Your task to perform on an android device: What is the recent news? Image 0: 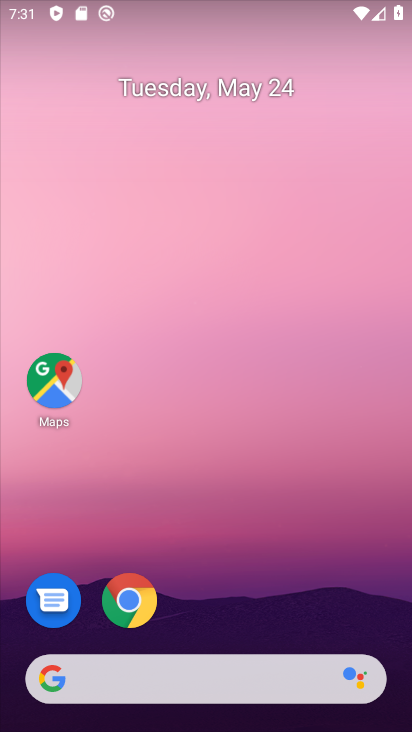
Step 0: drag from (86, 254) to (408, 322)
Your task to perform on an android device: What is the recent news? Image 1: 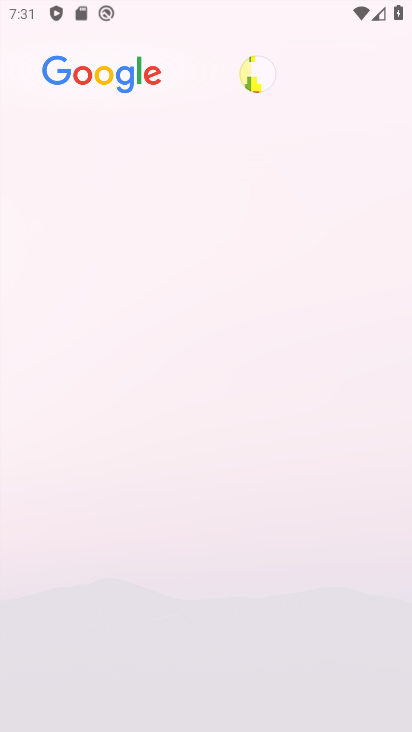
Step 1: task complete